Your task to perform on an android device: Find coffee shops on Maps Image 0: 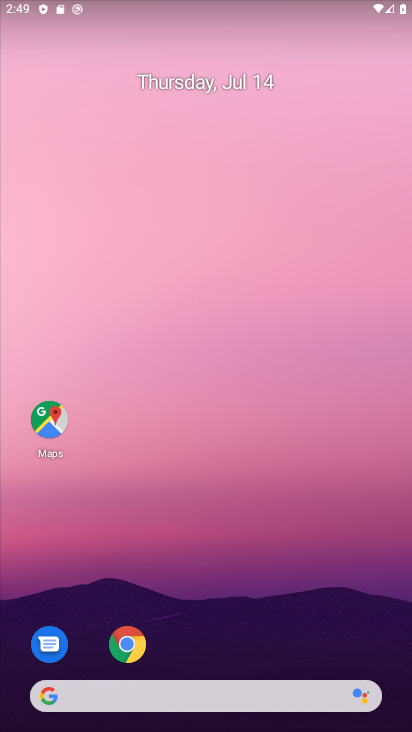
Step 0: click (145, 13)
Your task to perform on an android device: Find coffee shops on Maps Image 1: 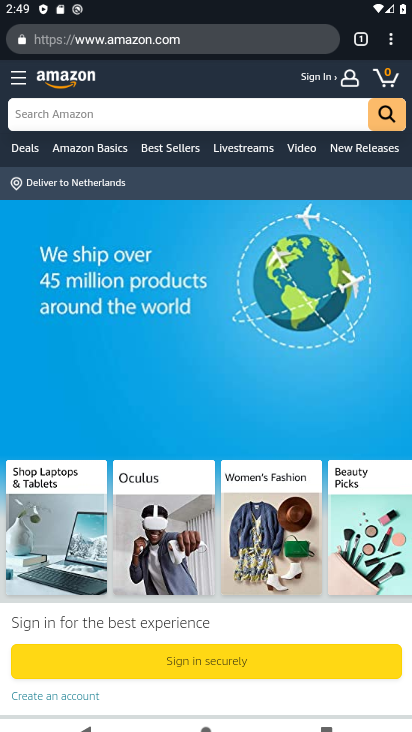
Step 1: drag from (177, 635) to (222, 209)
Your task to perform on an android device: Find coffee shops on Maps Image 2: 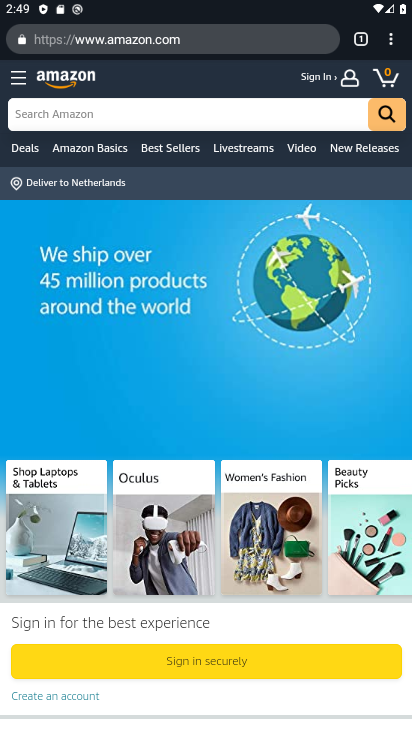
Step 2: drag from (239, 644) to (344, 284)
Your task to perform on an android device: Find coffee shops on Maps Image 3: 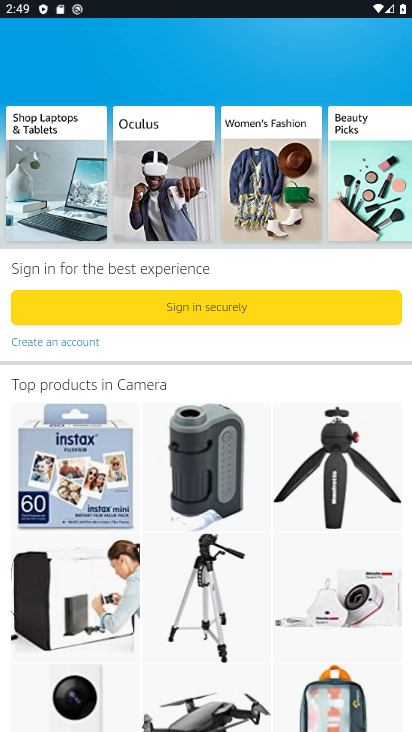
Step 3: press home button
Your task to perform on an android device: Find coffee shops on Maps Image 4: 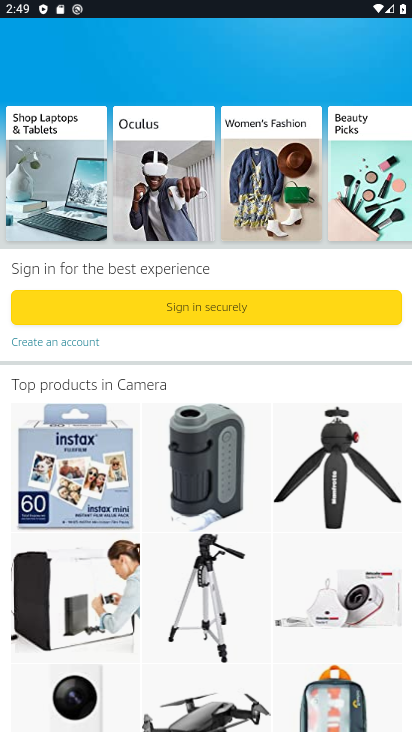
Step 4: press home button
Your task to perform on an android device: Find coffee shops on Maps Image 5: 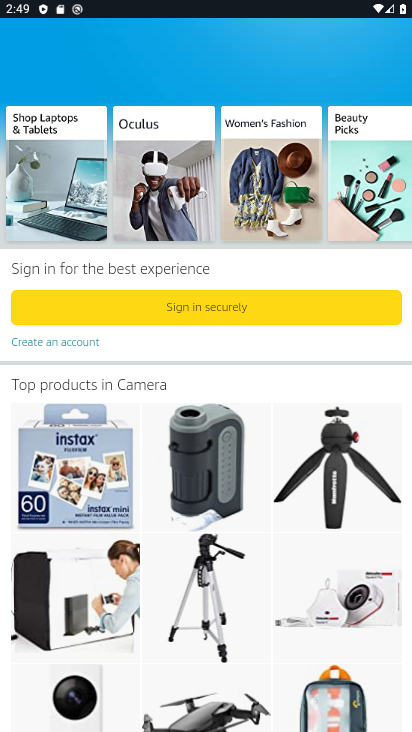
Step 5: drag from (215, 34) to (4, 11)
Your task to perform on an android device: Find coffee shops on Maps Image 6: 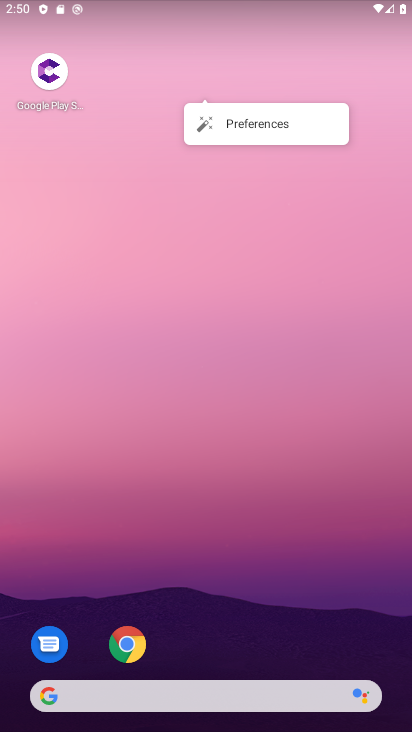
Step 6: drag from (181, 564) to (179, 156)
Your task to perform on an android device: Find coffee shops on Maps Image 7: 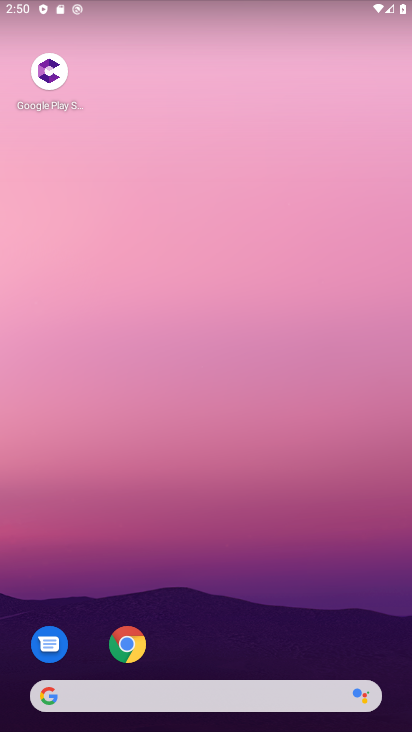
Step 7: drag from (190, 580) to (190, 313)
Your task to perform on an android device: Find coffee shops on Maps Image 8: 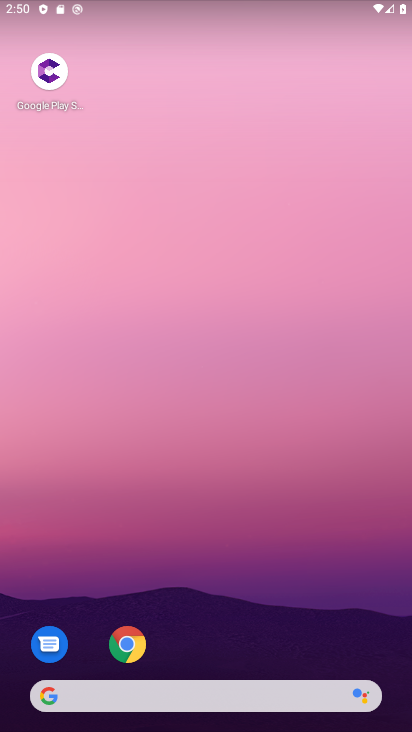
Step 8: drag from (180, 621) to (222, 191)
Your task to perform on an android device: Find coffee shops on Maps Image 9: 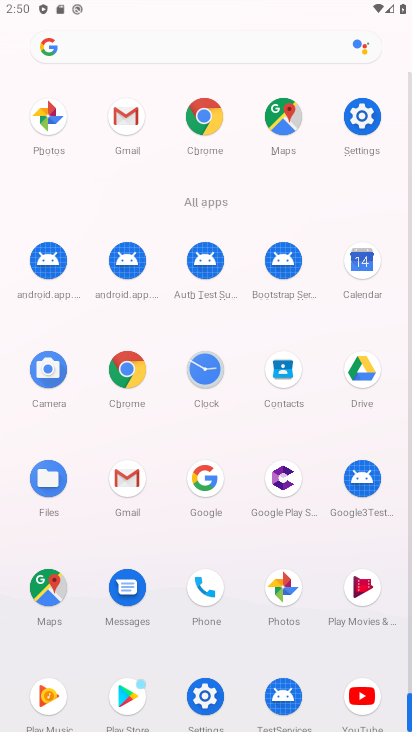
Step 9: click (51, 590)
Your task to perform on an android device: Find coffee shops on Maps Image 10: 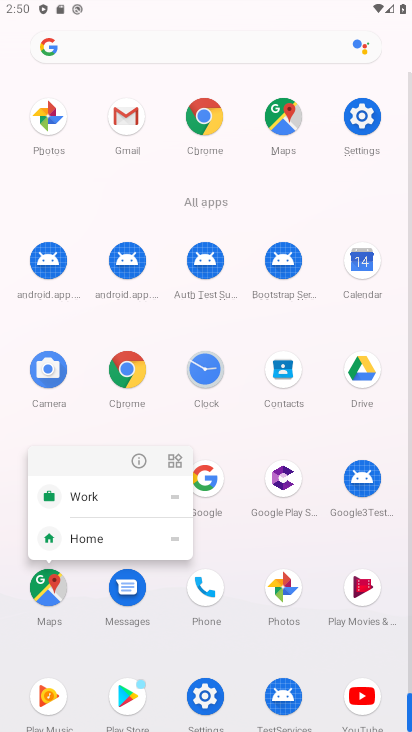
Step 10: click (130, 464)
Your task to perform on an android device: Find coffee shops on Maps Image 11: 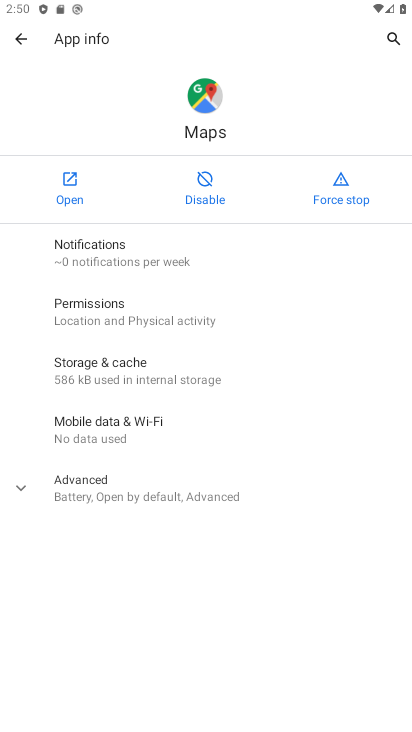
Step 11: click (83, 181)
Your task to perform on an android device: Find coffee shops on Maps Image 12: 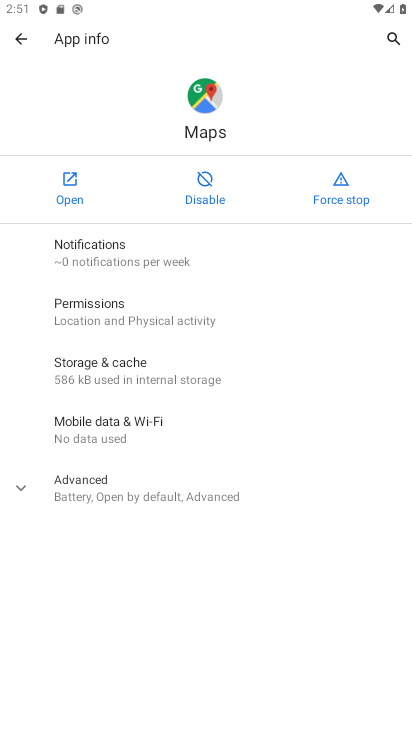
Step 12: click (83, 181)
Your task to perform on an android device: Find coffee shops on Maps Image 13: 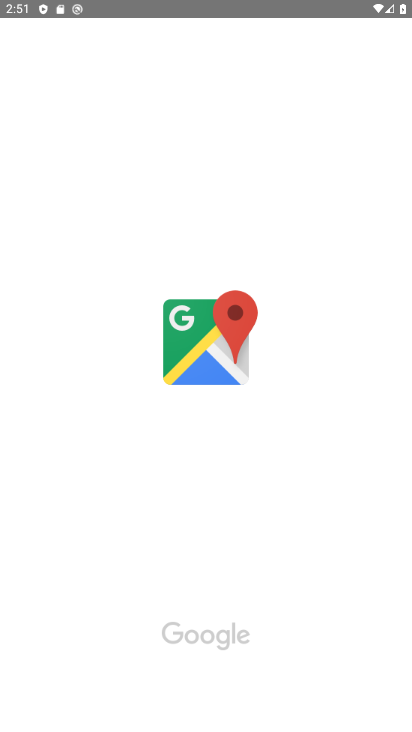
Step 13: drag from (273, 356) to (285, 70)
Your task to perform on an android device: Find coffee shops on Maps Image 14: 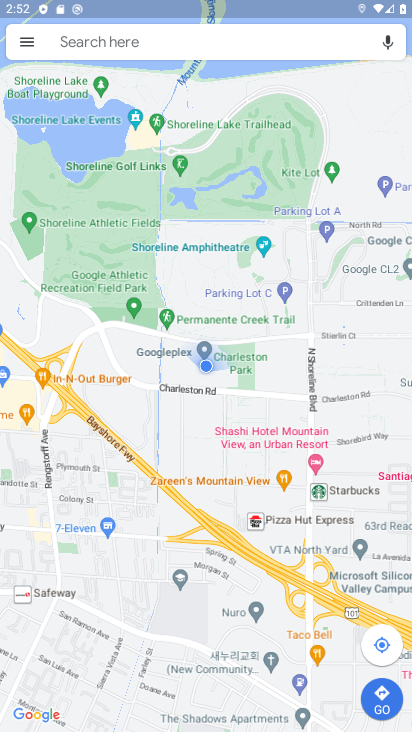
Step 14: drag from (211, 634) to (290, 412)
Your task to perform on an android device: Find coffee shops on Maps Image 15: 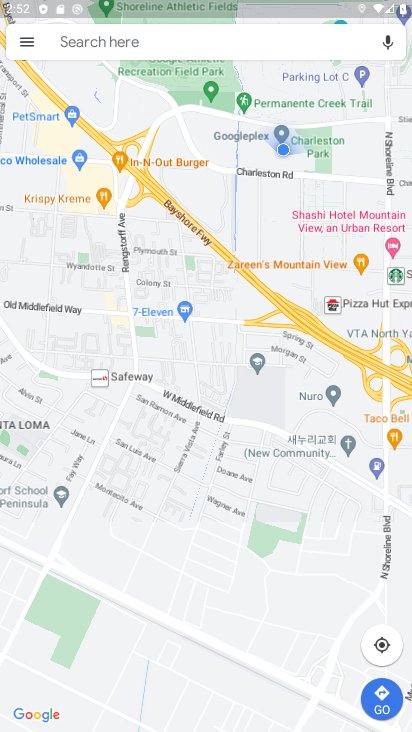
Step 15: click (93, 33)
Your task to perform on an android device: Find coffee shops on Maps Image 16: 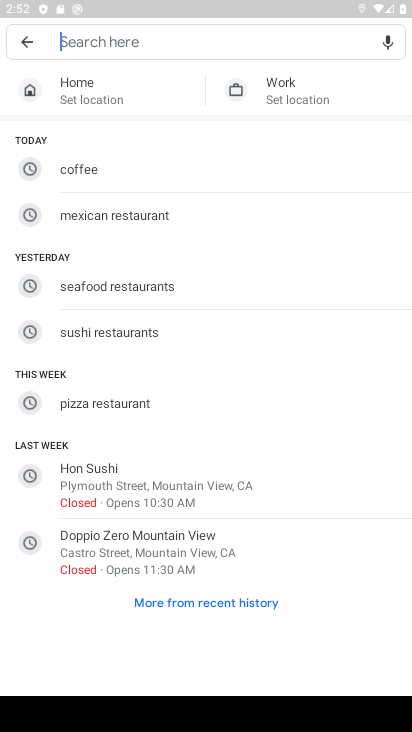
Step 16: click (66, 185)
Your task to perform on an android device: Find coffee shops on Maps Image 17: 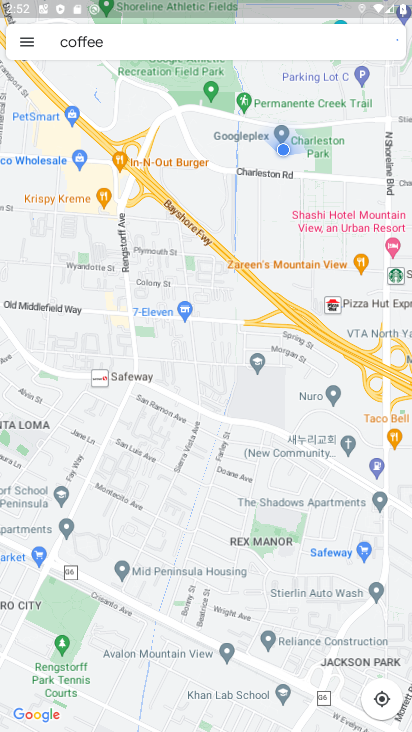
Step 17: task complete